Your task to perform on an android device: Go to network settings Image 0: 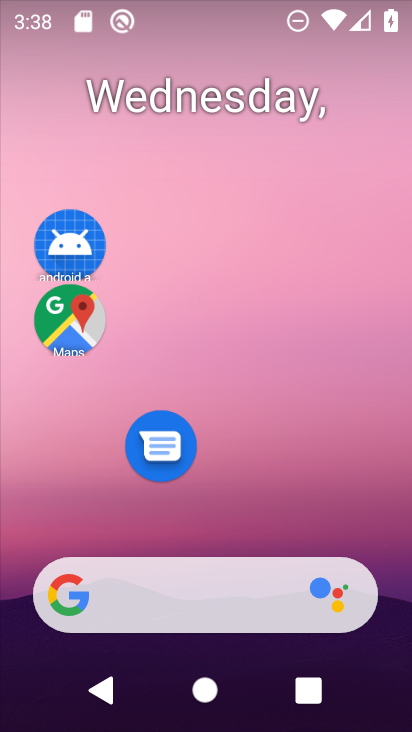
Step 0: drag from (328, 513) to (260, 138)
Your task to perform on an android device: Go to network settings Image 1: 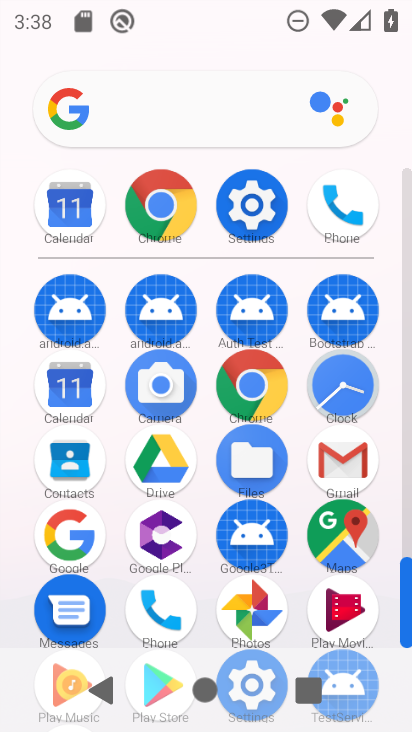
Step 1: click (257, 180)
Your task to perform on an android device: Go to network settings Image 2: 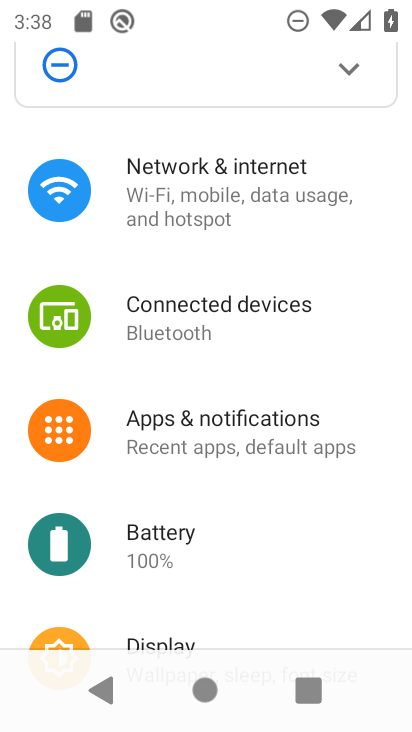
Step 2: click (255, 173)
Your task to perform on an android device: Go to network settings Image 3: 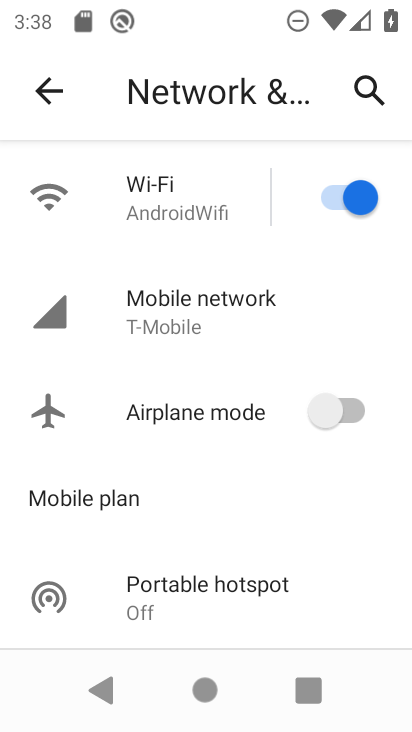
Step 3: task complete